Your task to perform on an android device: snooze an email in the gmail app Image 0: 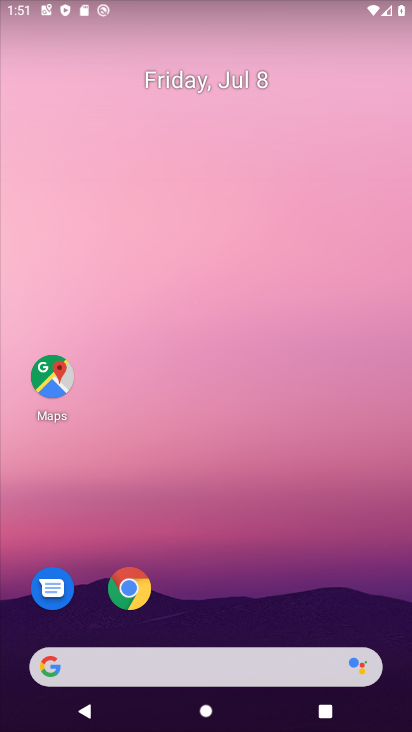
Step 0: press home button
Your task to perform on an android device: snooze an email in the gmail app Image 1: 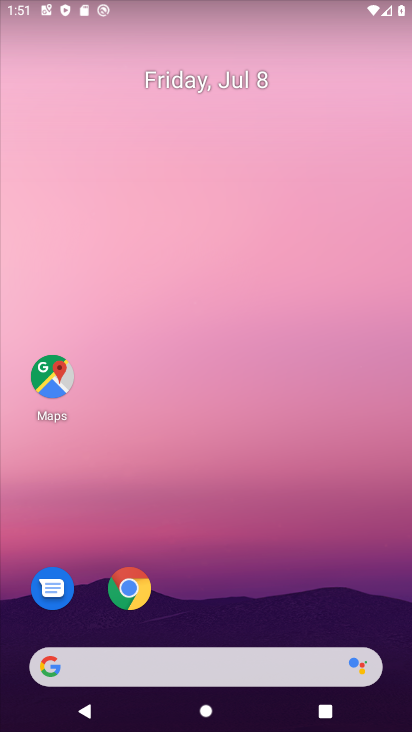
Step 1: drag from (195, 618) to (154, 200)
Your task to perform on an android device: snooze an email in the gmail app Image 2: 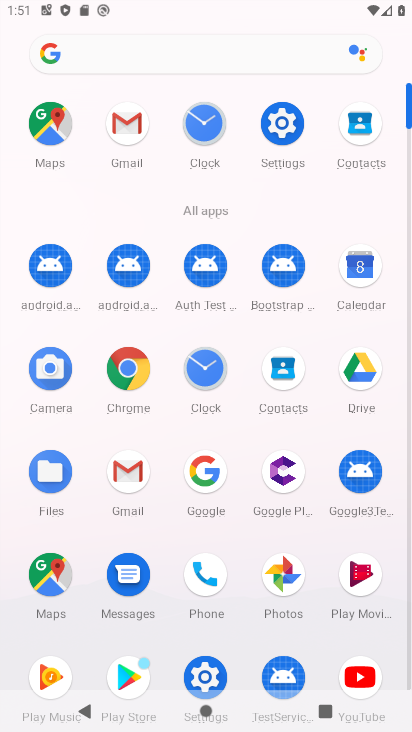
Step 2: click (121, 129)
Your task to perform on an android device: snooze an email in the gmail app Image 3: 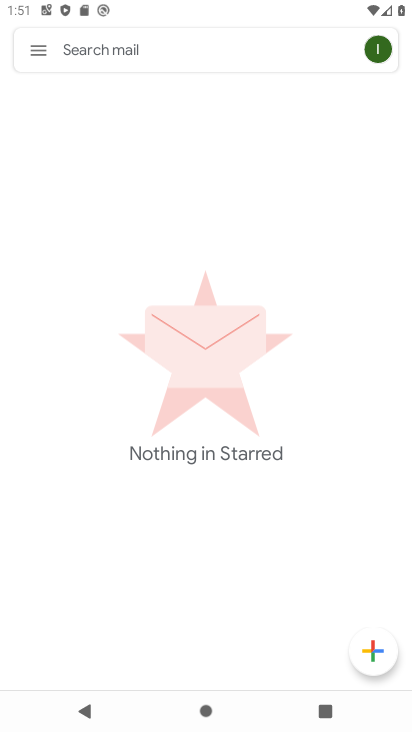
Step 3: click (39, 38)
Your task to perform on an android device: snooze an email in the gmail app Image 4: 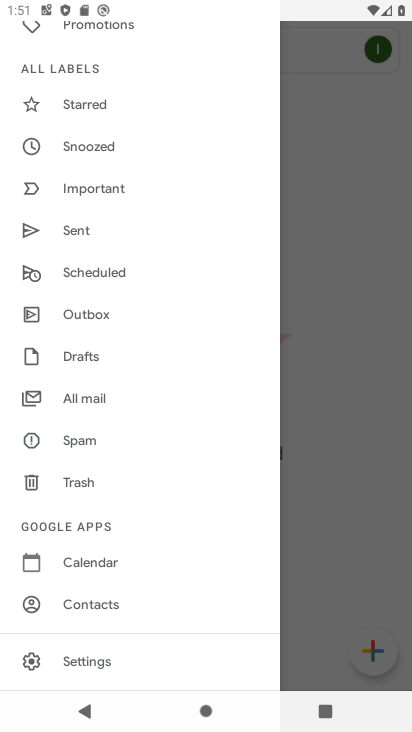
Step 4: click (85, 396)
Your task to perform on an android device: snooze an email in the gmail app Image 5: 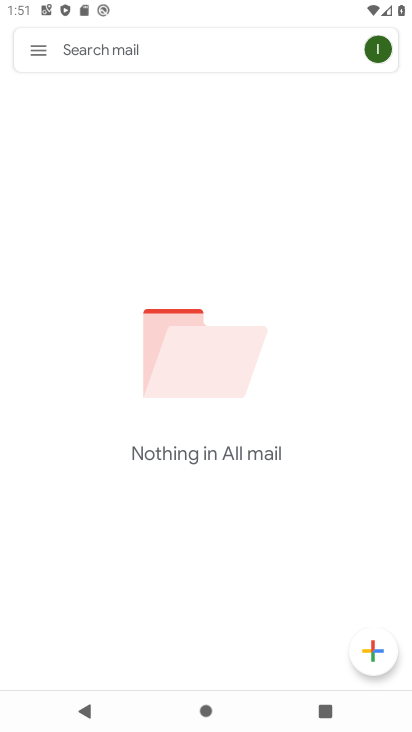
Step 5: task complete